Your task to perform on an android device: turn on sleep mode Image 0: 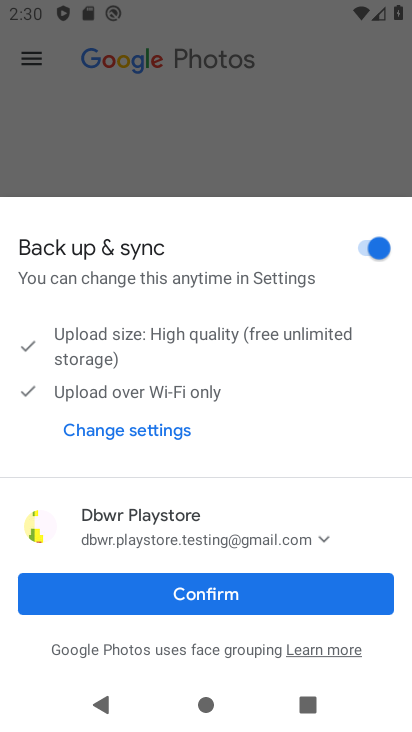
Step 0: press back button
Your task to perform on an android device: turn on sleep mode Image 1: 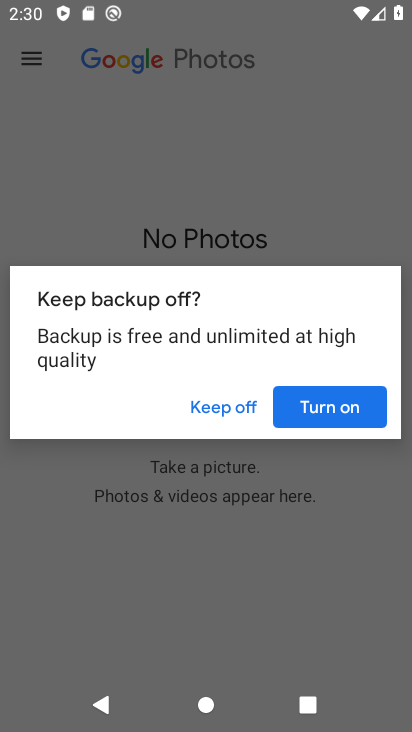
Step 1: click (236, 413)
Your task to perform on an android device: turn on sleep mode Image 2: 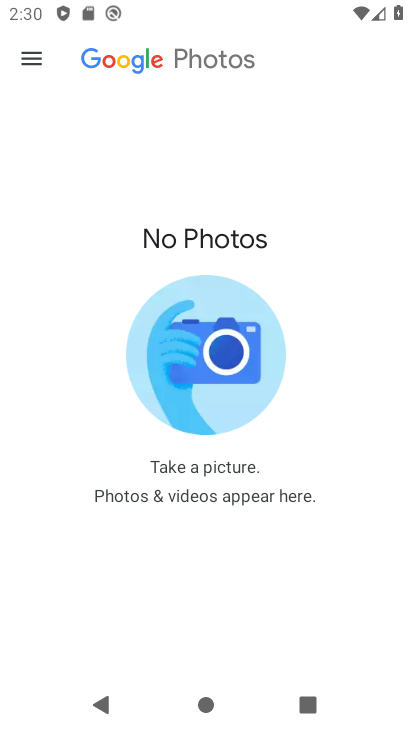
Step 2: press back button
Your task to perform on an android device: turn on sleep mode Image 3: 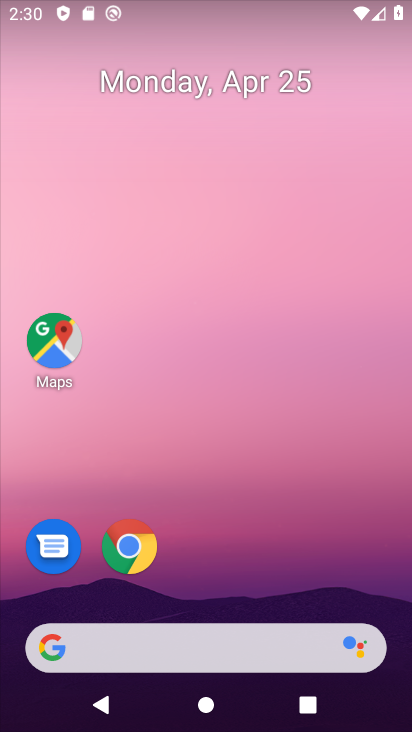
Step 3: drag from (210, 623) to (315, 133)
Your task to perform on an android device: turn on sleep mode Image 4: 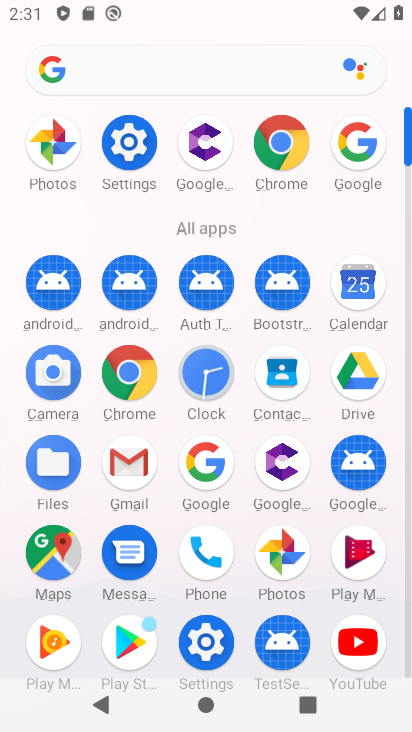
Step 4: click (203, 637)
Your task to perform on an android device: turn on sleep mode Image 5: 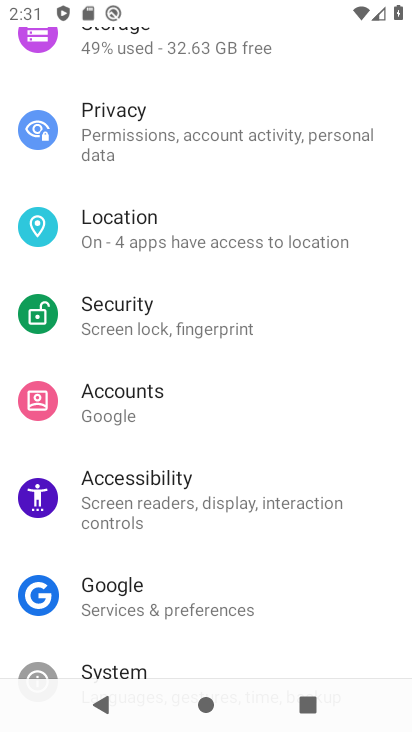
Step 5: drag from (185, 211) to (144, 599)
Your task to perform on an android device: turn on sleep mode Image 6: 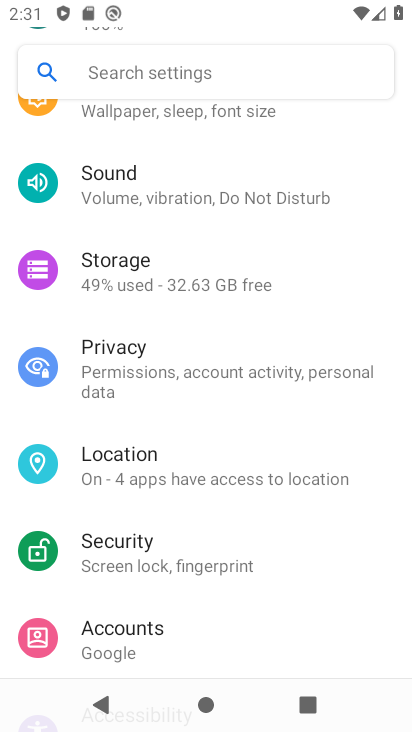
Step 6: drag from (184, 192) to (164, 557)
Your task to perform on an android device: turn on sleep mode Image 7: 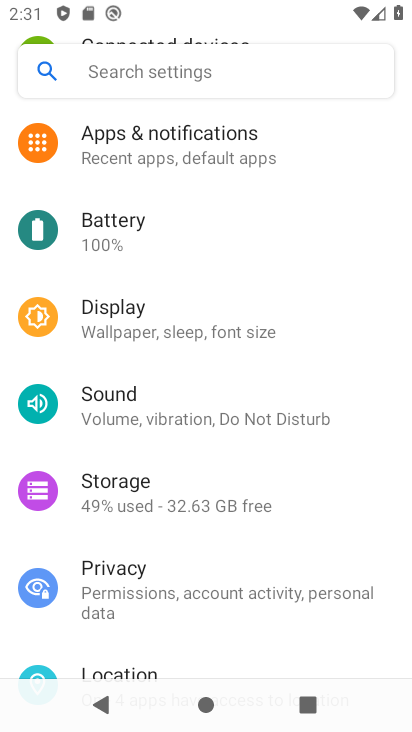
Step 7: click (162, 310)
Your task to perform on an android device: turn on sleep mode Image 8: 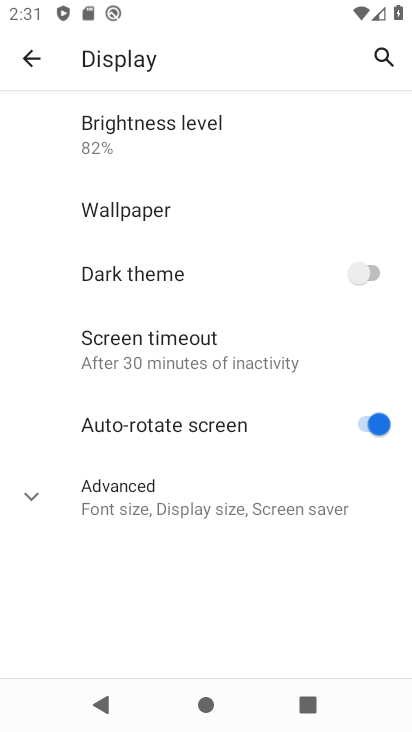
Step 8: click (202, 497)
Your task to perform on an android device: turn on sleep mode Image 9: 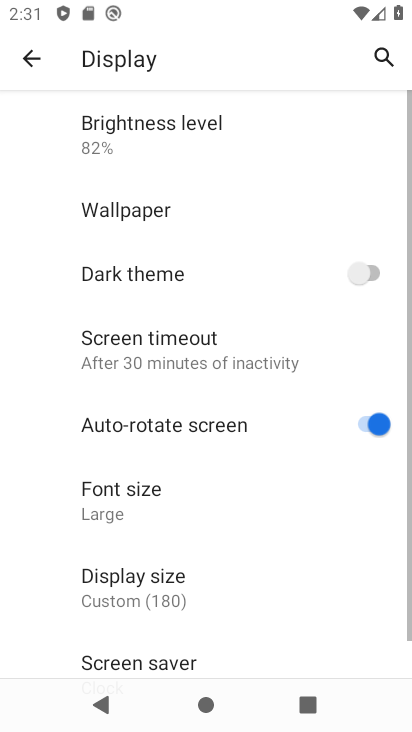
Step 9: task complete